Your task to perform on an android device: toggle data saver in the chrome app Image 0: 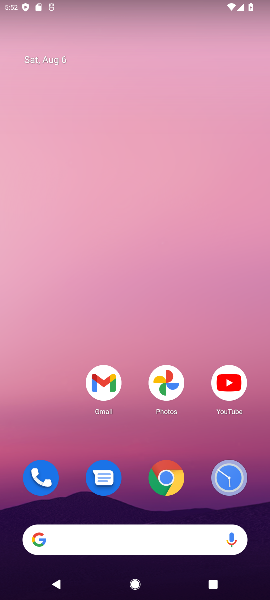
Step 0: click (156, 486)
Your task to perform on an android device: toggle data saver in the chrome app Image 1: 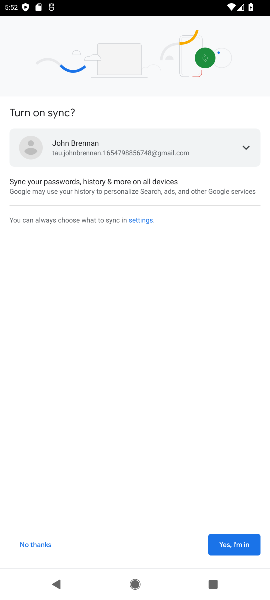
Step 1: press back button
Your task to perform on an android device: toggle data saver in the chrome app Image 2: 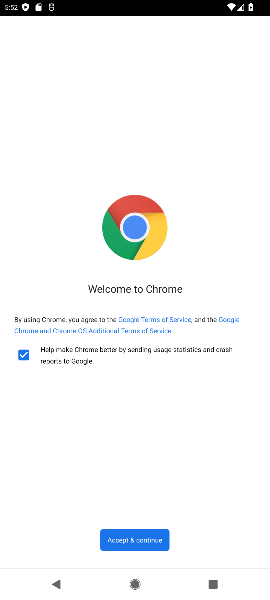
Step 2: click (129, 534)
Your task to perform on an android device: toggle data saver in the chrome app Image 3: 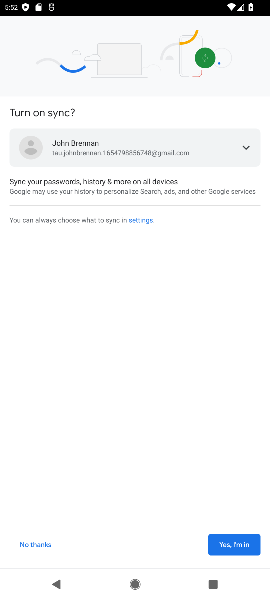
Step 3: click (131, 541)
Your task to perform on an android device: toggle data saver in the chrome app Image 4: 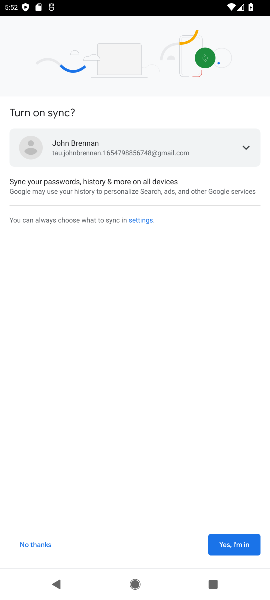
Step 4: click (227, 542)
Your task to perform on an android device: toggle data saver in the chrome app Image 5: 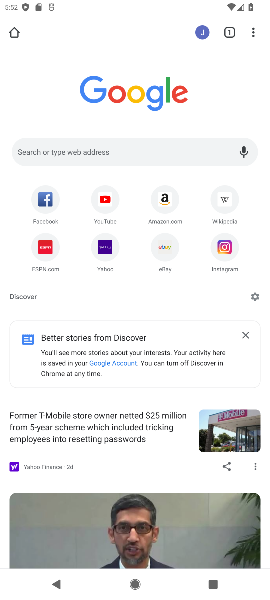
Step 5: click (252, 37)
Your task to perform on an android device: toggle data saver in the chrome app Image 6: 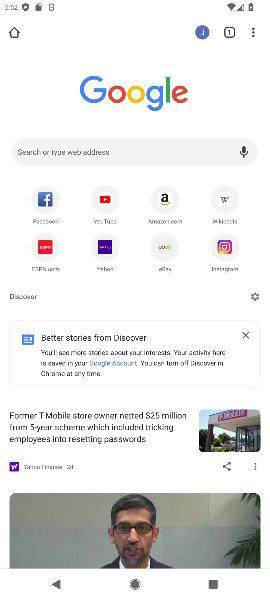
Step 6: click (255, 35)
Your task to perform on an android device: toggle data saver in the chrome app Image 7: 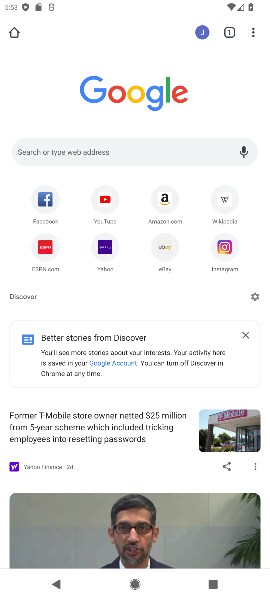
Step 7: click (254, 32)
Your task to perform on an android device: toggle data saver in the chrome app Image 8: 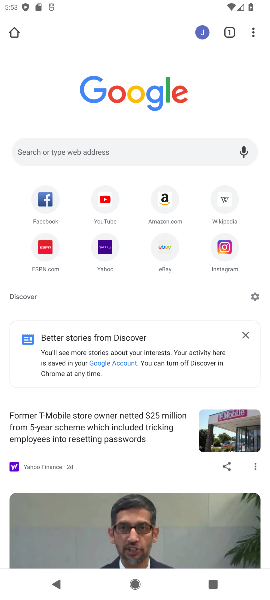
Step 8: click (254, 32)
Your task to perform on an android device: toggle data saver in the chrome app Image 9: 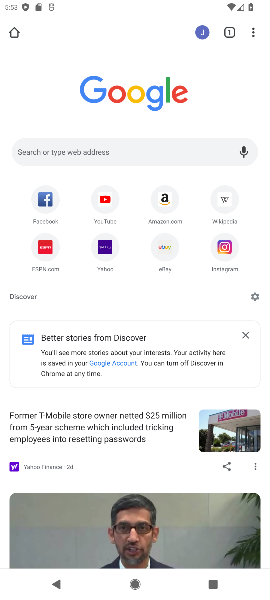
Step 9: click (250, 35)
Your task to perform on an android device: toggle data saver in the chrome app Image 10: 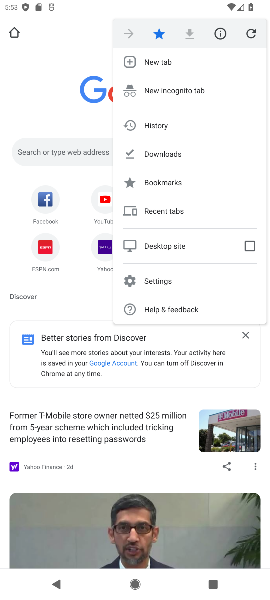
Step 10: click (159, 277)
Your task to perform on an android device: toggle data saver in the chrome app Image 11: 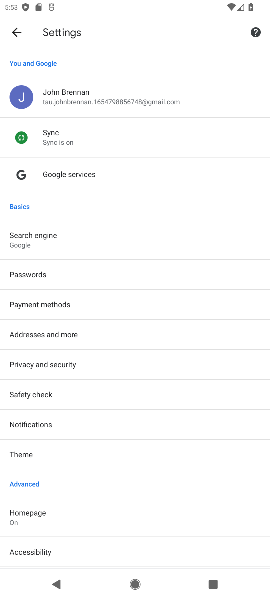
Step 11: drag from (119, 482) to (63, 195)
Your task to perform on an android device: toggle data saver in the chrome app Image 12: 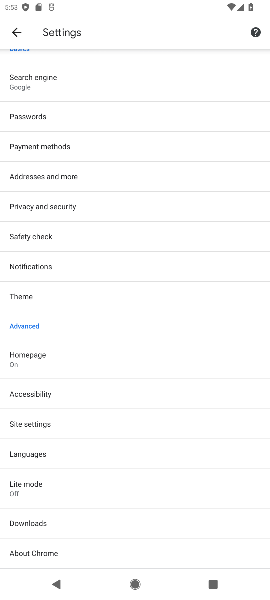
Step 12: click (33, 480)
Your task to perform on an android device: toggle data saver in the chrome app Image 13: 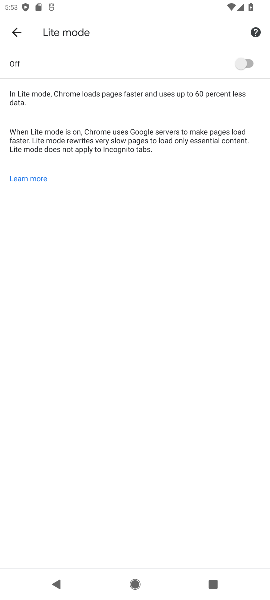
Step 13: click (240, 63)
Your task to perform on an android device: toggle data saver in the chrome app Image 14: 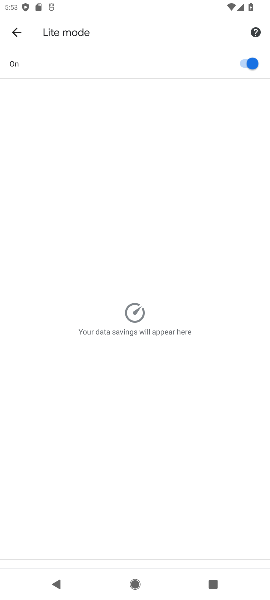
Step 14: task complete